Your task to perform on an android device: toggle notification dots Image 0: 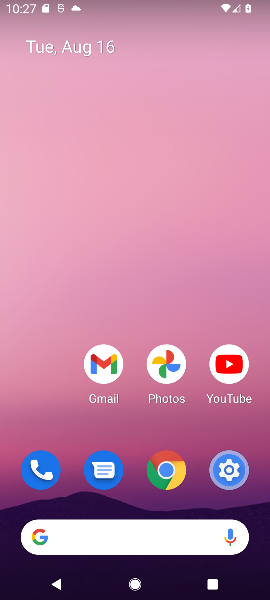
Step 0: click (235, 470)
Your task to perform on an android device: toggle notification dots Image 1: 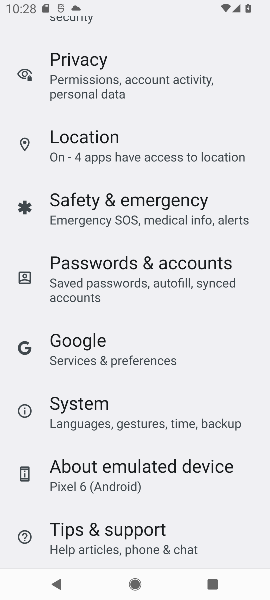
Step 1: drag from (163, 137) to (149, 518)
Your task to perform on an android device: toggle notification dots Image 2: 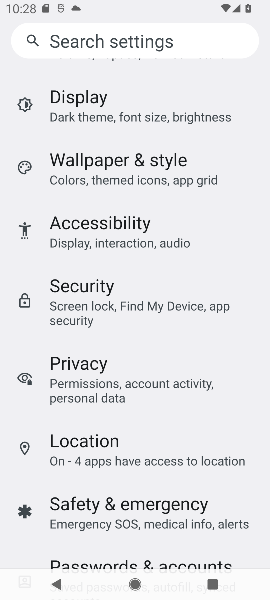
Step 2: drag from (158, 105) to (145, 439)
Your task to perform on an android device: toggle notification dots Image 3: 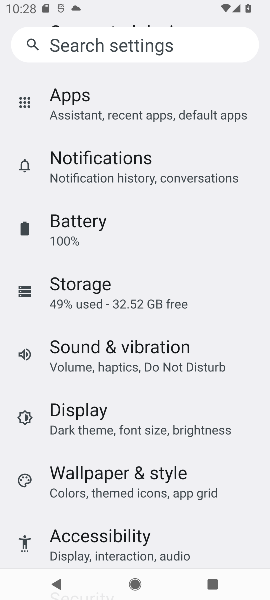
Step 3: click (162, 167)
Your task to perform on an android device: toggle notification dots Image 4: 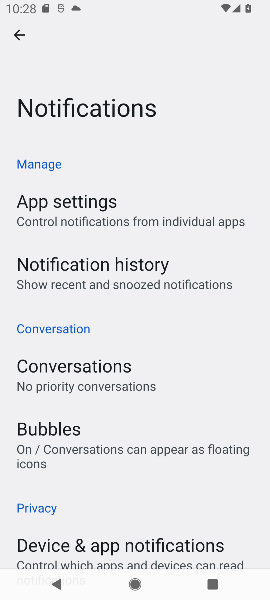
Step 4: drag from (143, 475) to (139, 28)
Your task to perform on an android device: toggle notification dots Image 5: 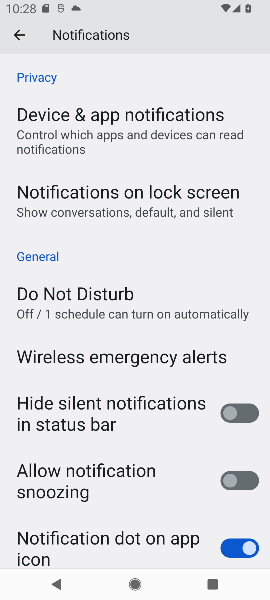
Step 5: click (240, 552)
Your task to perform on an android device: toggle notification dots Image 6: 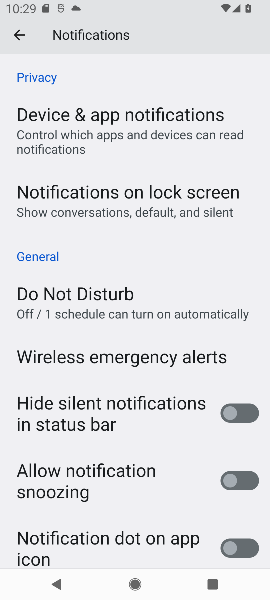
Step 6: task complete